Your task to perform on an android device: change keyboard looks Image 0: 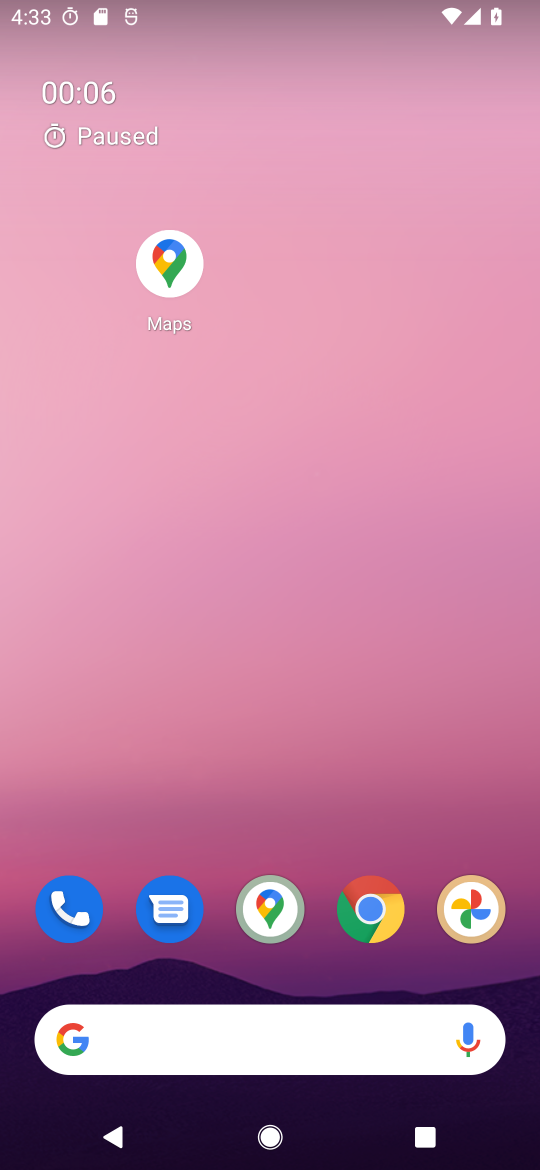
Step 0: drag from (253, 76) to (217, 148)
Your task to perform on an android device: change keyboard looks Image 1: 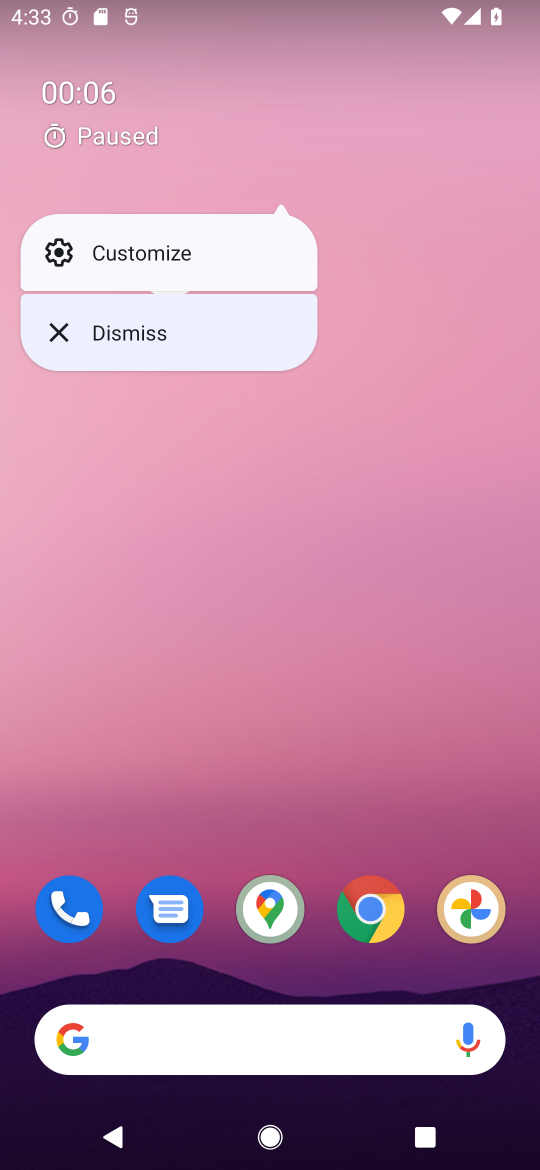
Step 1: click (254, 963)
Your task to perform on an android device: change keyboard looks Image 2: 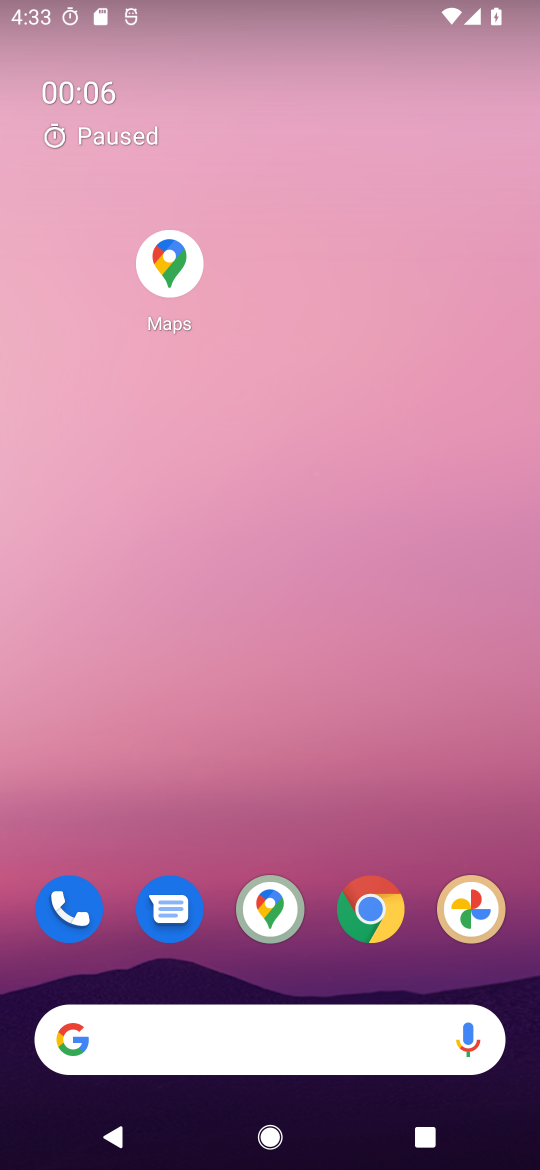
Step 2: drag from (227, 660) to (278, 263)
Your task to perform on an android device: change keyboard looks Image 3: 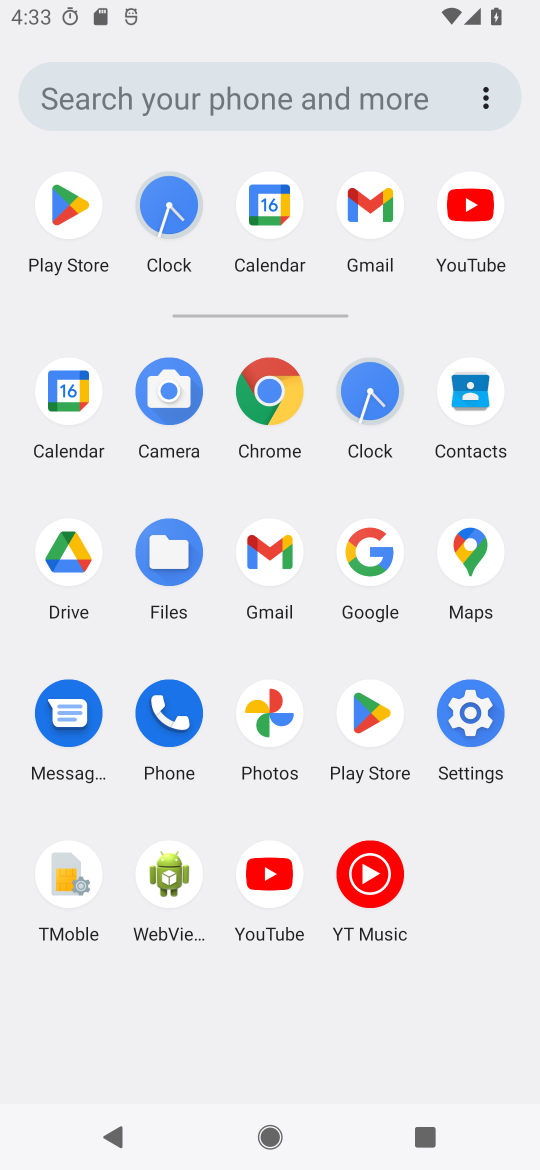
Step 3: click (470, 720)
Your task to perform on an android device: change keyboard looks Image 4: 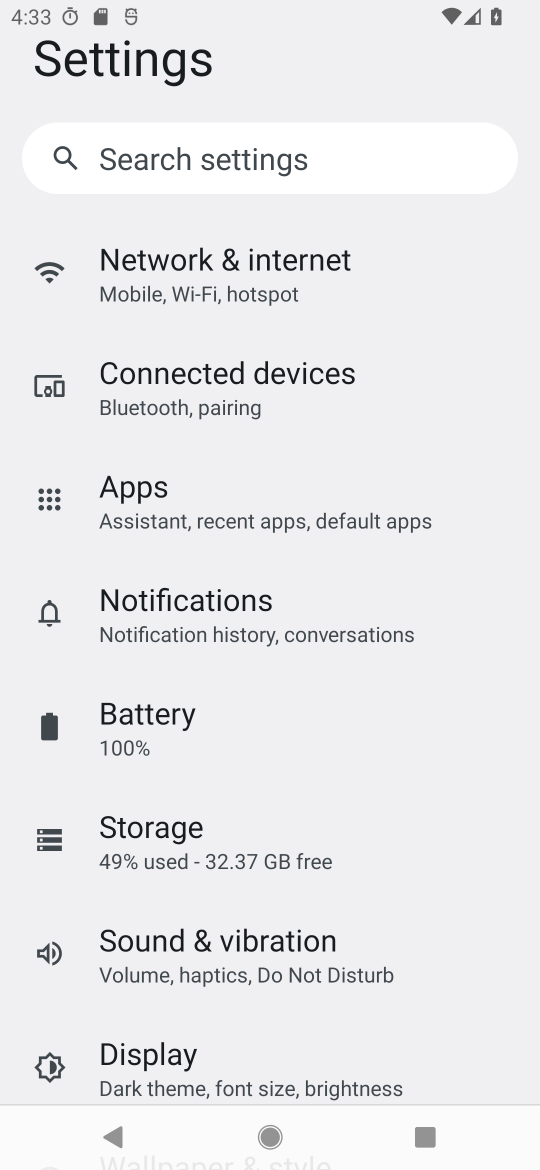
Step 4: drag from (278, 1009) to (301, 196)
Your task to perform on an android device: change keyboard looks Image 5: 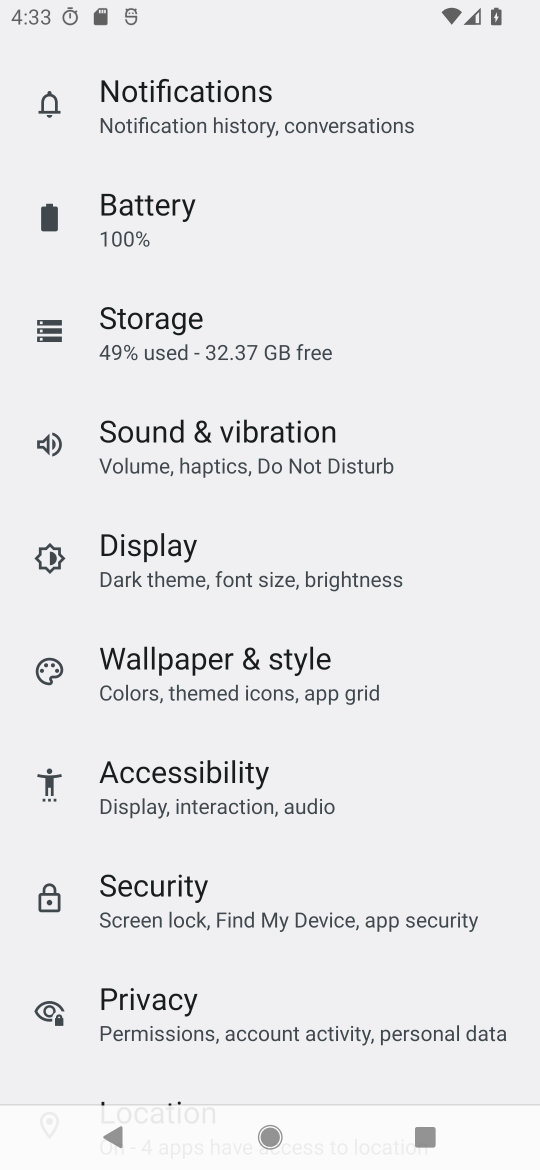
Step 5: drag from (296, 690) to (297, 189)
Your task to perform on an android device: change keyboard looks Image 6: 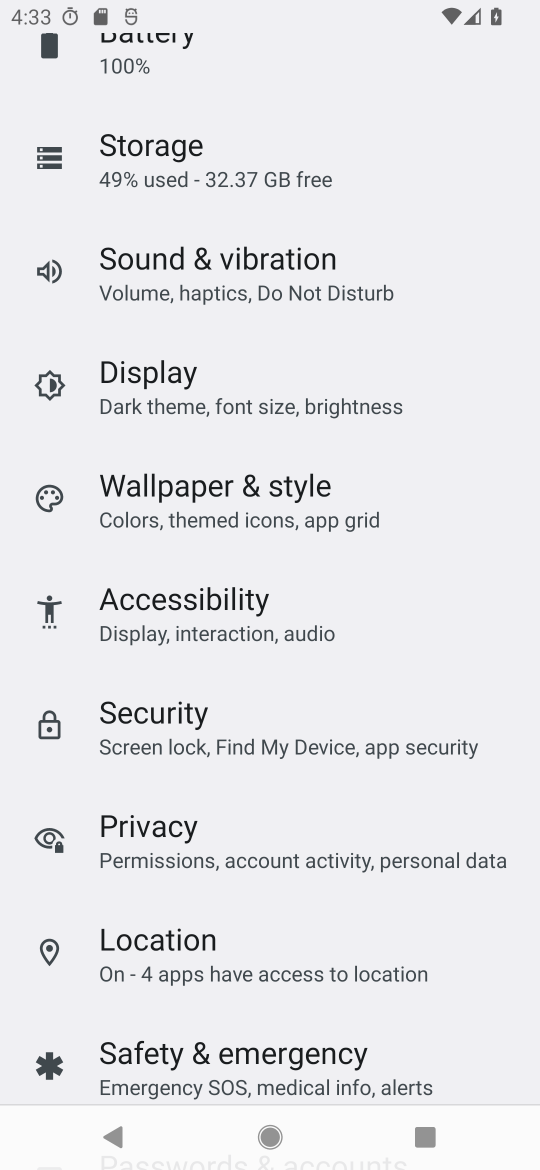
Step 6: drag from (334, 857) to (337, 37)
Your task to perform on an android device: change keyboard looks Image 7: 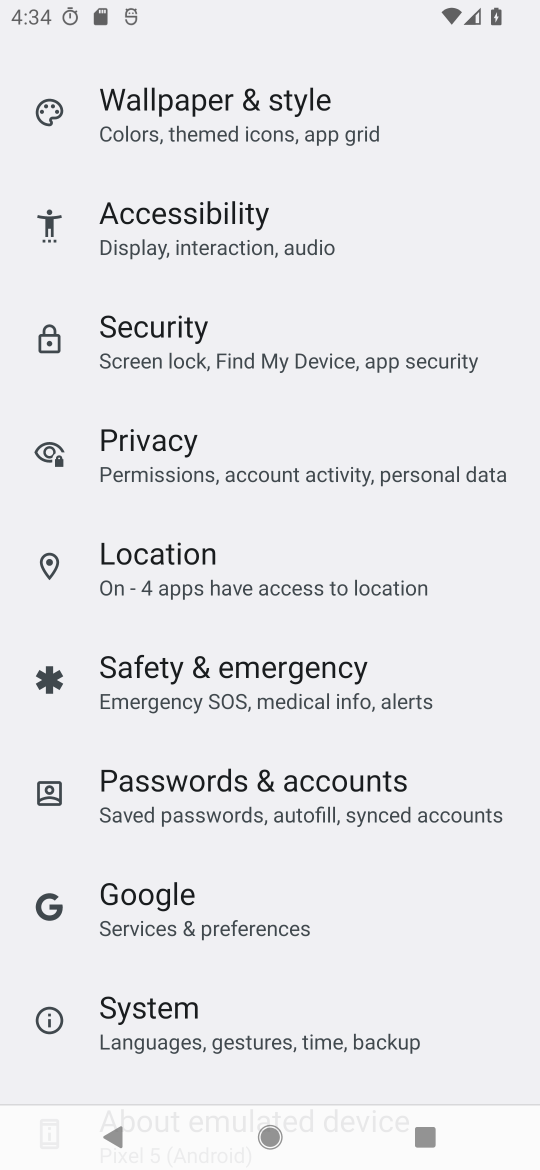
Step 7: click (146, 1022)
Your task to perform on an android device: change keyboard looks Image 8: 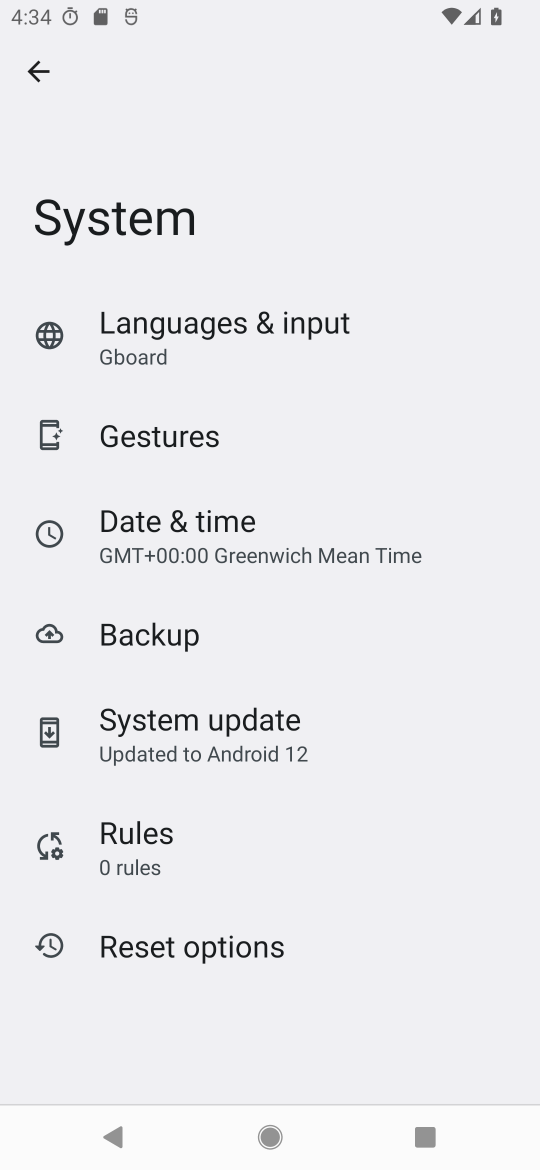
Step 8: click (182, 361)
Your task to perform on an android device: change keyboard looks Image 9: 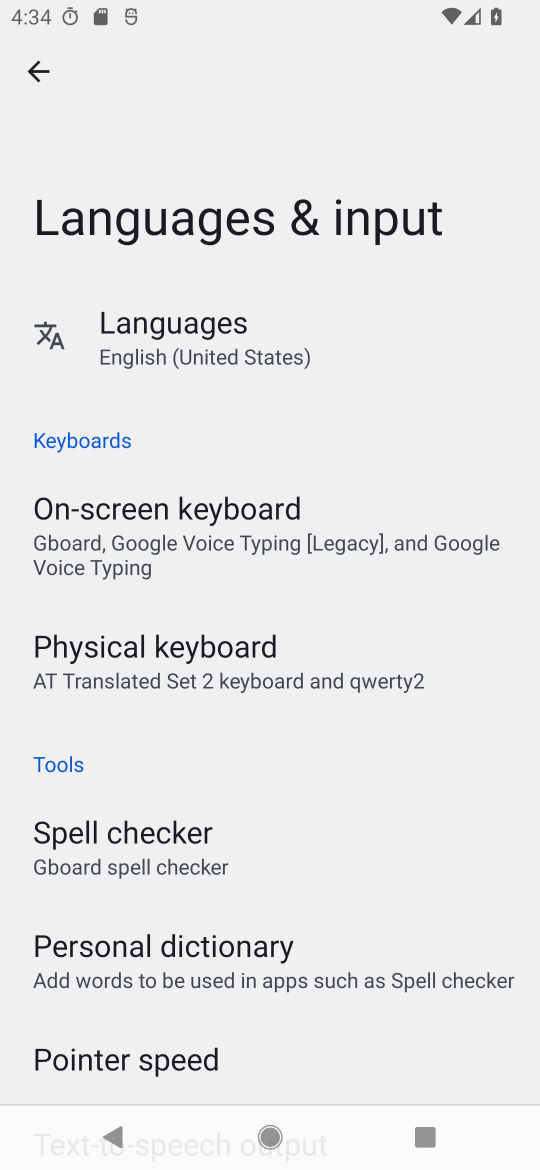
Step 9: click (190, 538)
Your task to perform on an android device: change keyboard looks Image 10: 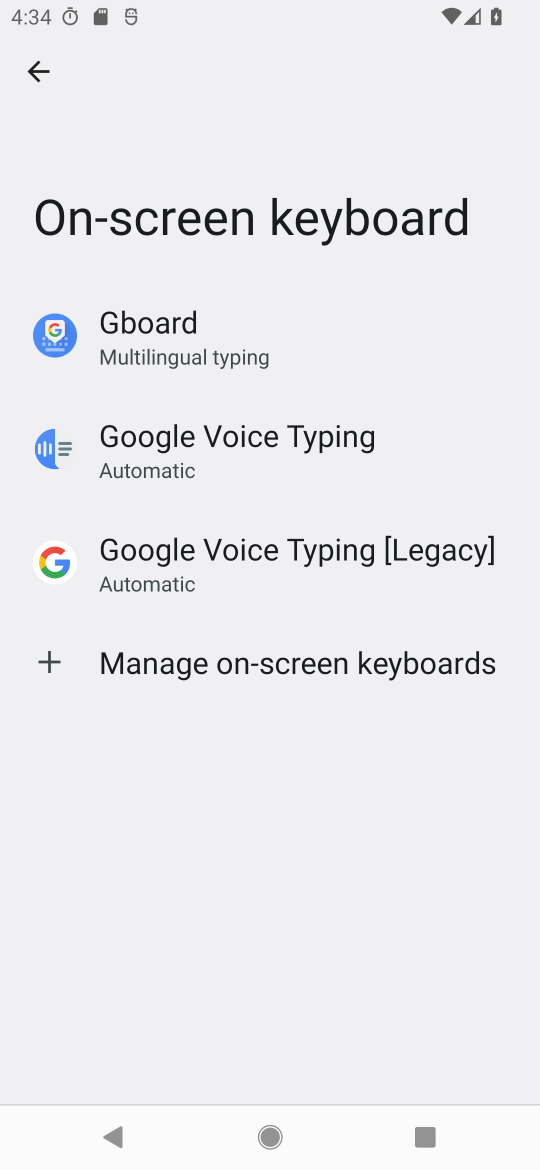
Step 10: click (137, 340)
Your task to perform on an android device: change keyboard looks Image 11: 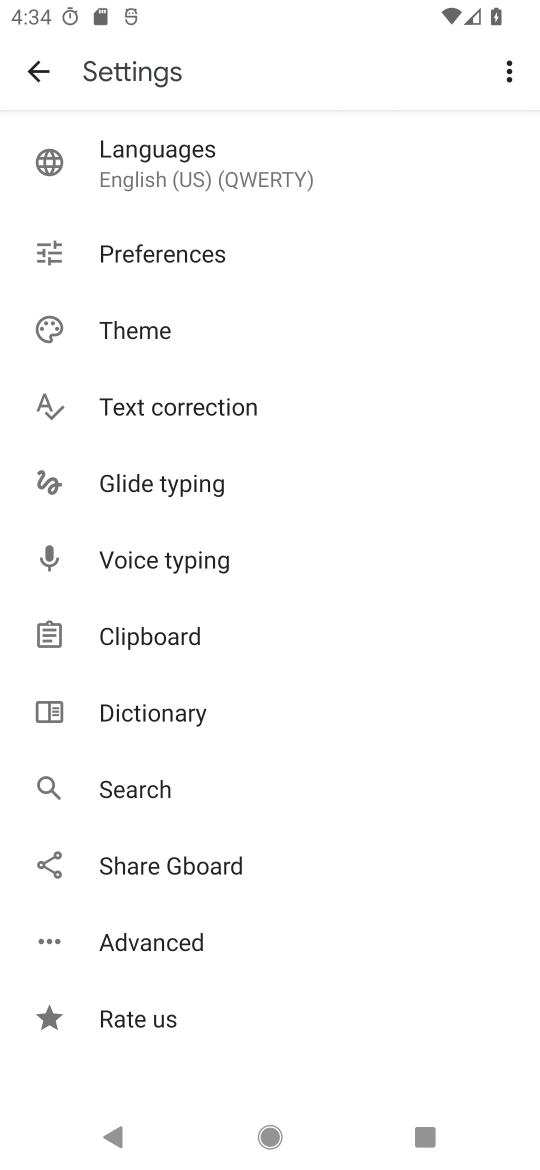
Step 11: click (135, 333)
Your task to perform on an android device: change keyboard looks Image 12: 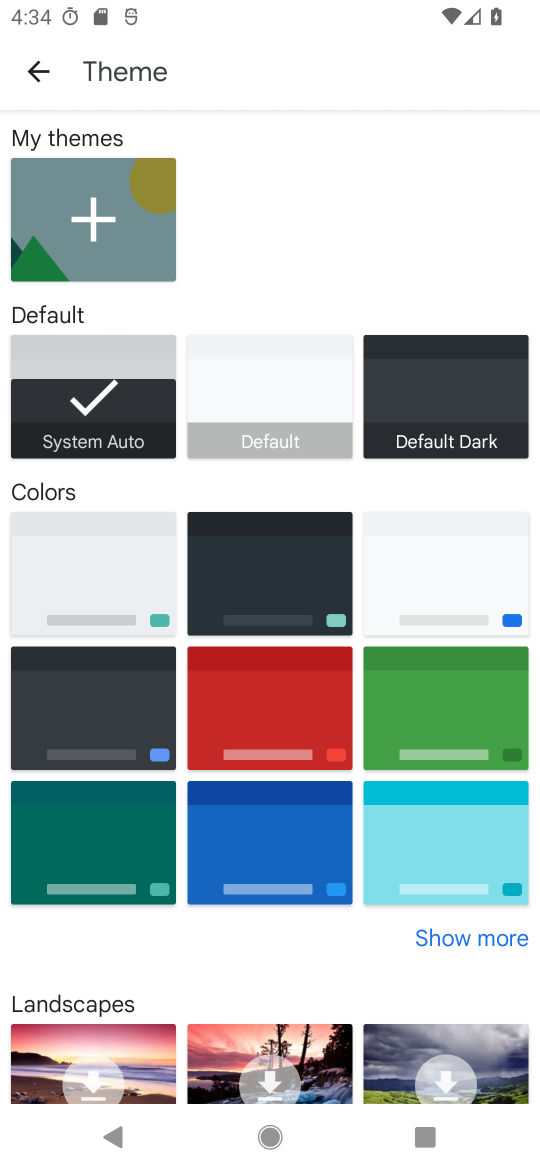
Step 12: click (289, 586)
Your task to perform on an android device: change keyboard looks Image 13: 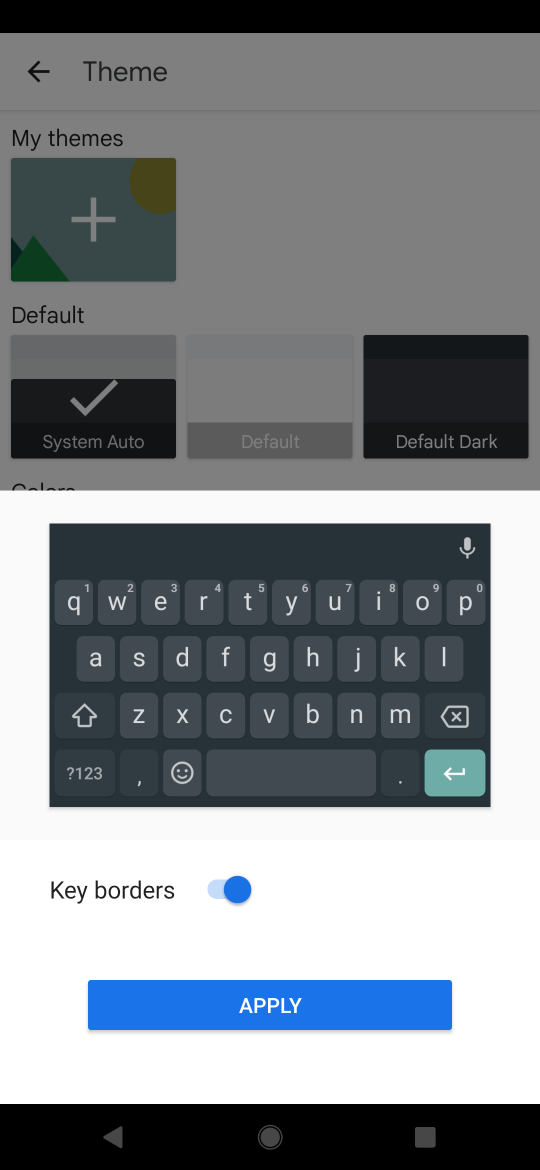
Step 13: click (264, 1016)
Your task to perform on an android device: change keyboard looks Image 14: 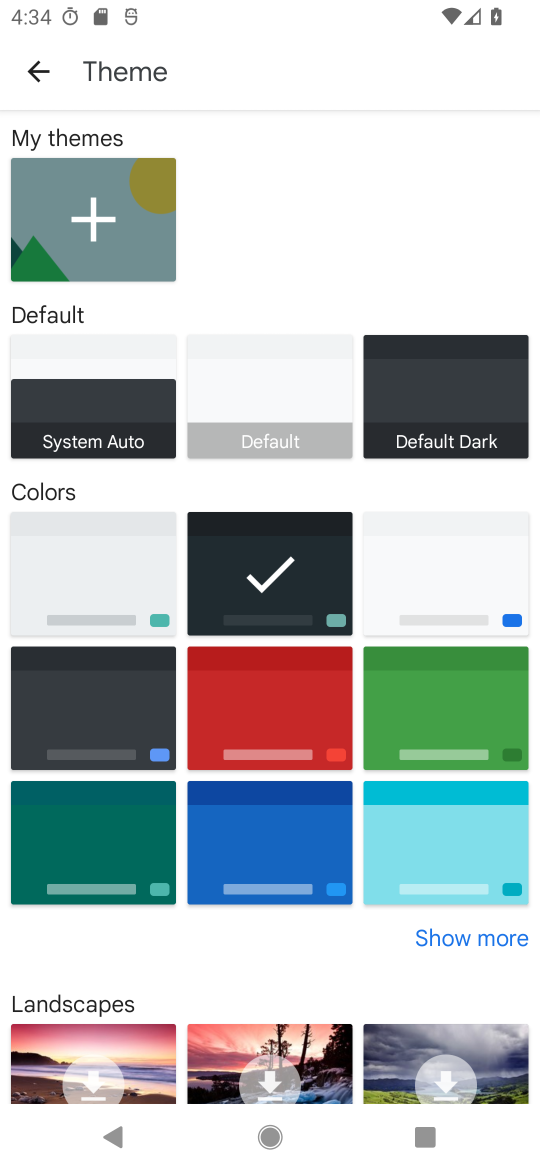
Step 14: task complete